Your task to perform on an android device: Open Wikipedia Image 0: 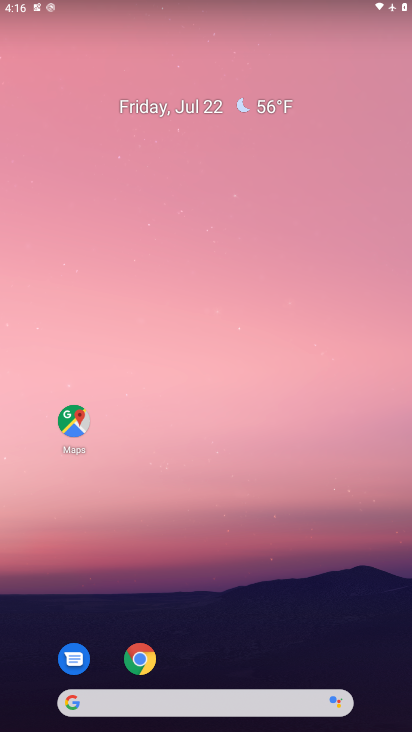
Step 0: drag from (197, 694) to (204, 195)
Your task to perform on an android device: Open Wikipedia Image 1: 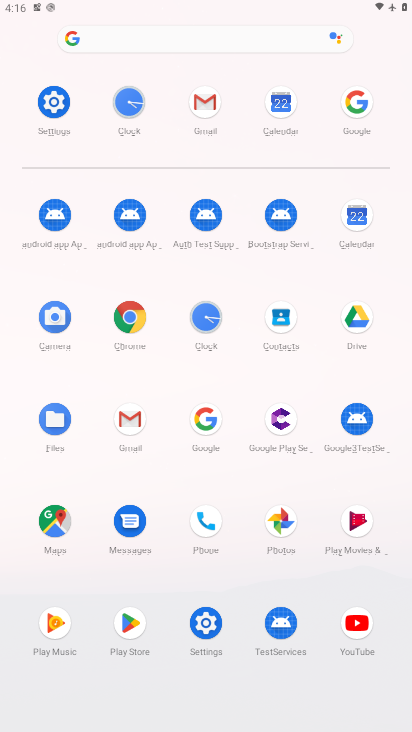
Step 1: click (134, 313)
Your task to perform on an android device: Open Wikipedia Image 2: 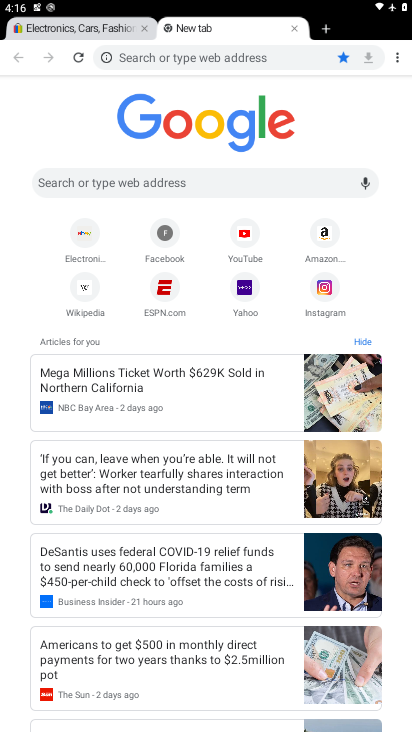
Step 2: click (79, 283)
Your task to perform on an android device: Open Wikipedia Image 3: 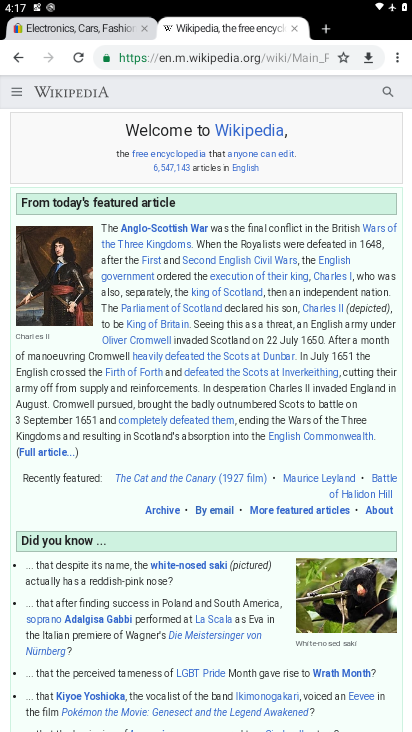
Step 3: task complete